Your task to perform on an android device: turn on showing notifications on the lock screen Image 0: 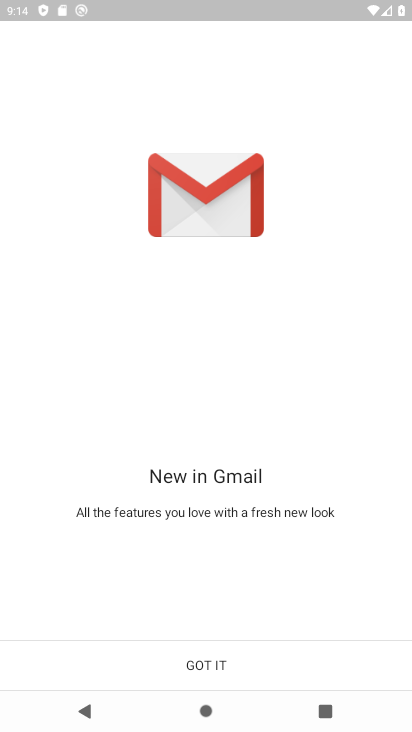
Step 0: press home button
Your task to perform on an android device: turn on showing notifications on the lock screen Image 1: 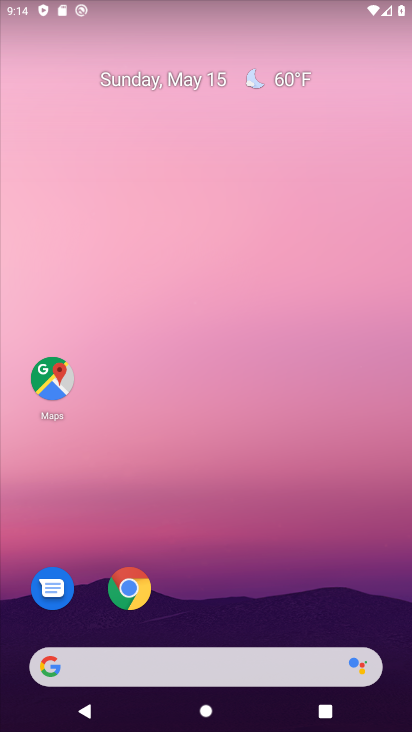
Step 1: drag from (216, 617) to (212, 213)
Your task to perform on an android device: turn on showing notifications on the lock screen Image 2: 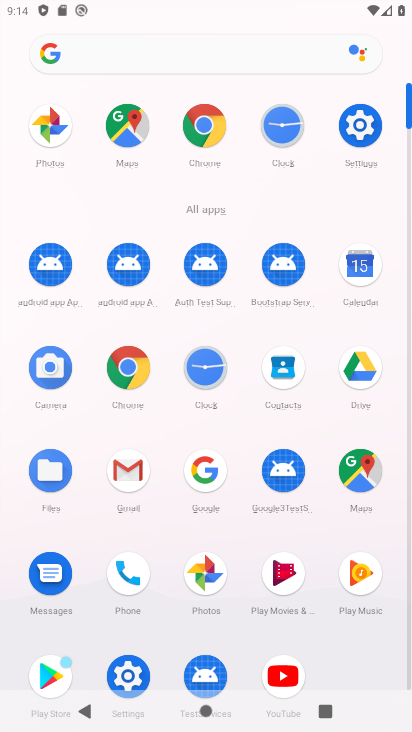
Step 2: click (131, 667)
Your task to perform on an android device: turn on showing notifications on the lock screen Image 3: 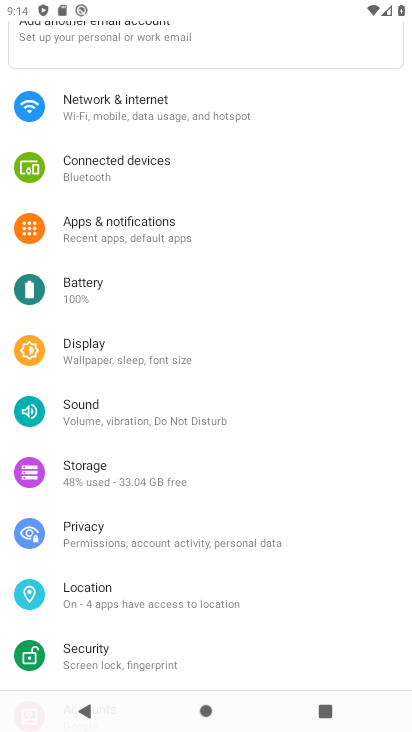
Step 3: click (145, 236)
Your task to perform on an android device: turn on showing notifications on the lock screen Image 4: 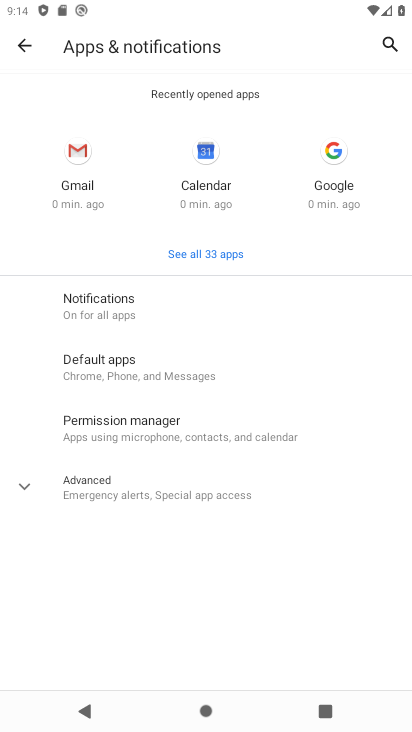
Step 4: click (135, 310)
Your task to perform on an android device: turn on showing notifications on the lock screen Image 5: 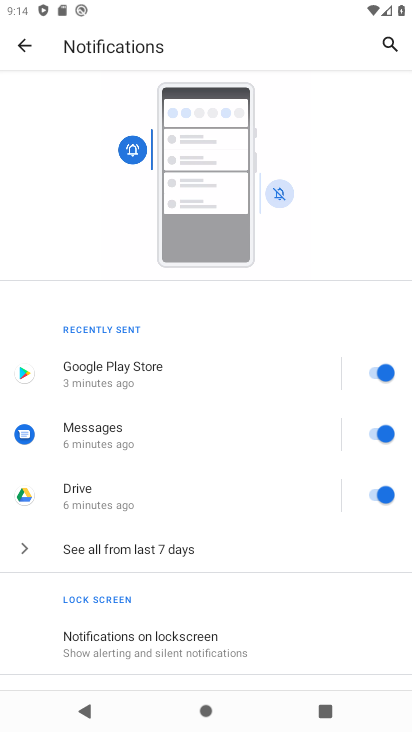
Step 5: click (149, 649)
Your task to perform on an android device: turn on showing notifications on the lock screen Image 6: 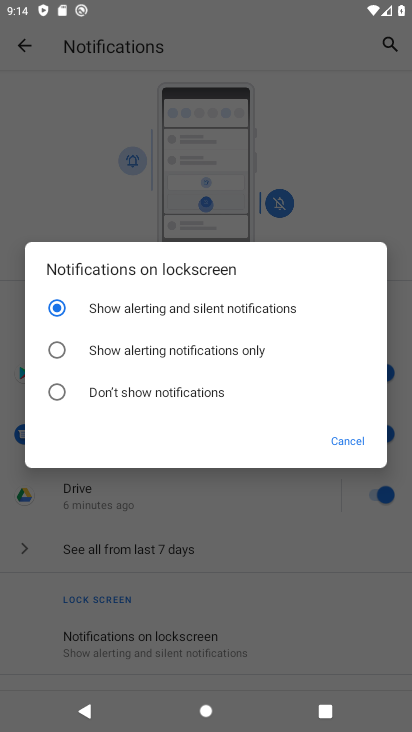
Step 6: task complete